Your task to perform on an android device: Go to calendar. Show me events next week Image 0: 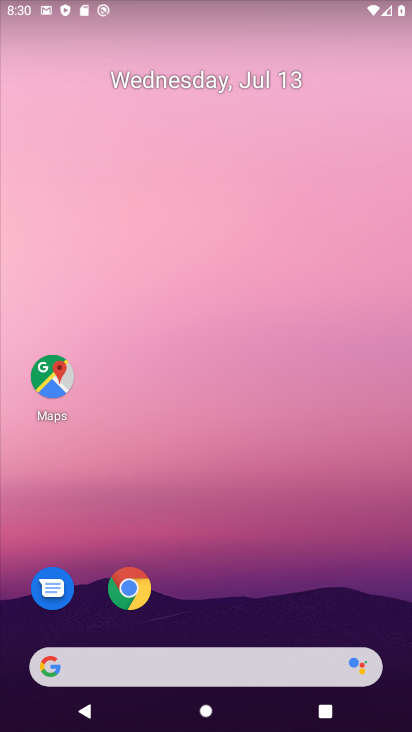
Step 0: click (220, 185)
Your task to perform on an android device: Go to calendar. Show me events next week Image 1: 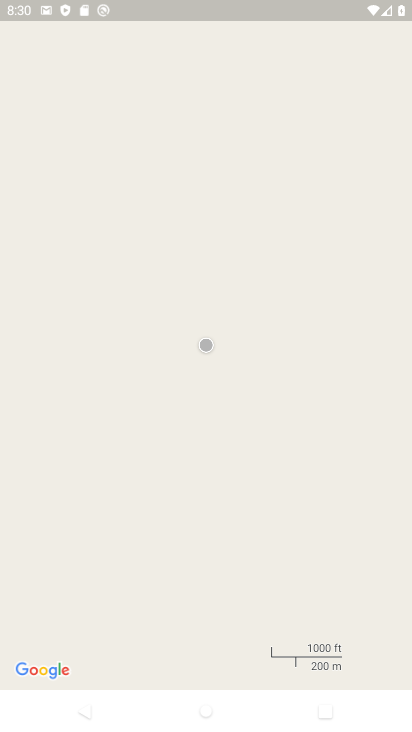
Step 1: press home button
Your task to perform on an android device: Go to calendar. Show me events next week Image 2: 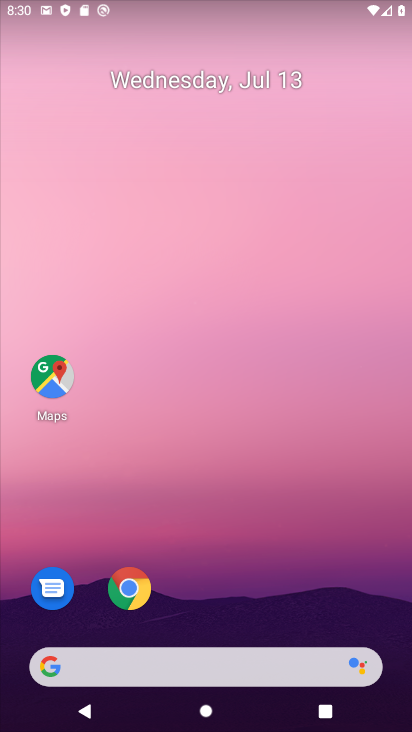
Step 2: drag from (258, 525) to (269, 191)
Your task to perform on an android device: Go to calendar. Show me events next week Image 3: 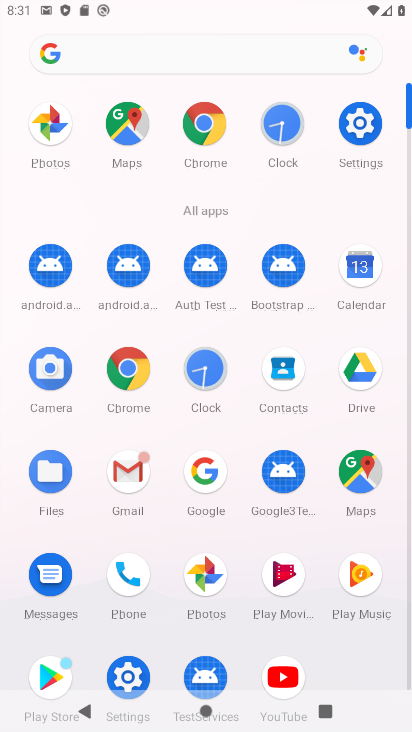
Step 3: click (358, 266)
Your task to perform on an android device: Go to calendar. Show me events next week Image 4: 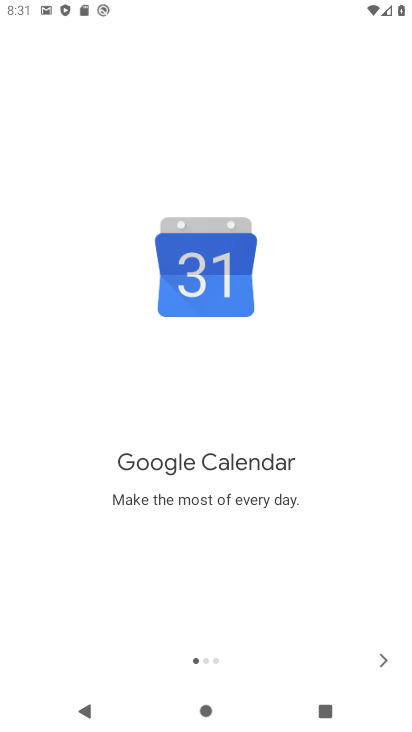
Step 4: click (375, 652)
Your task to perform on an android device: Go to calendar. Show me events next week Image 5: 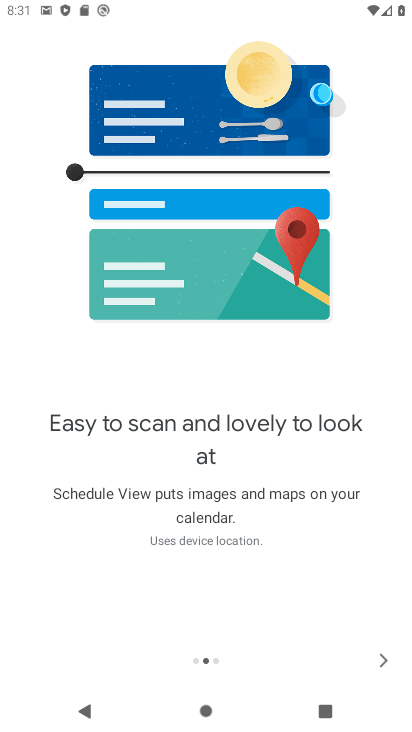
Step 5: click (373, 648)
Your task to perform on an android device: Go to calendar. Show me events next week Image 6: 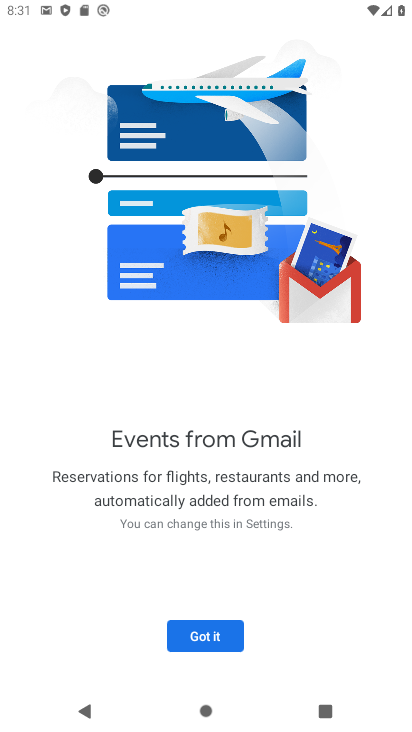
Step 6: click (213, 627)
Your task to perform on an android device: Go to calendar. Show me events next week Image 7: 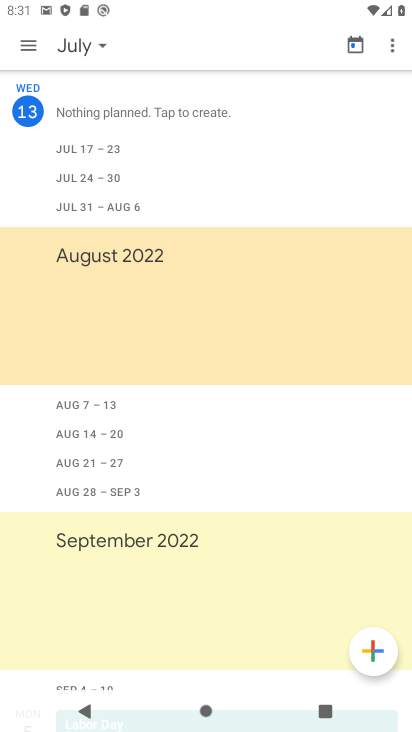
Step 7: click (24, 37)
Your task to perform on an android device: Go to calendar. Show me events next week Image 8: 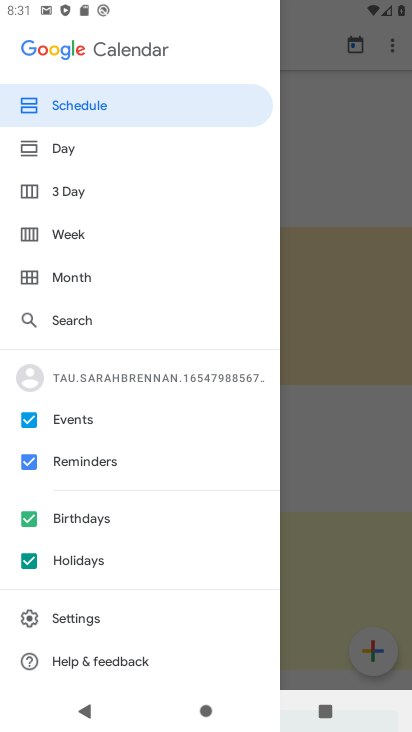
Step 8: click (56, 273)
Your task to perform on an android device: Go to calendar. Show me events next week Image 9: 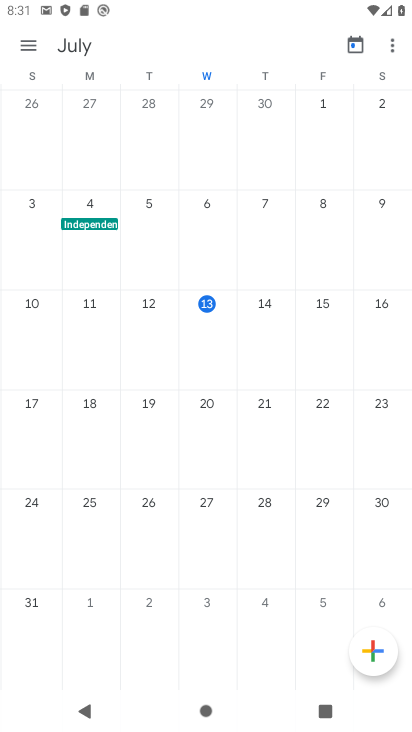
Step 9: click (29, 42)
Your task to perform on an android device: Go to calendar. Show me events next week Image 10: 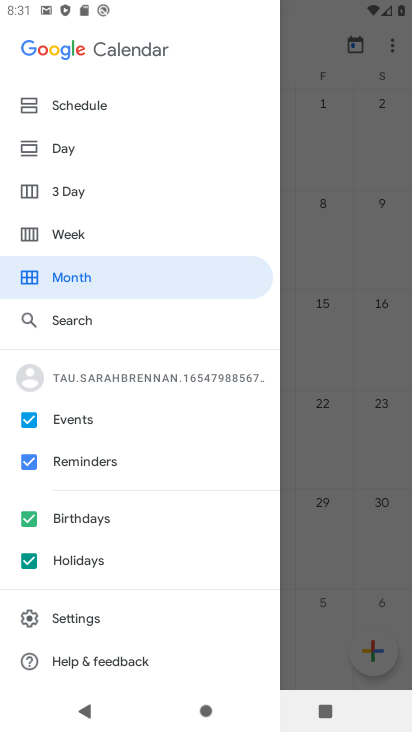
Step 10: click (101, 223)
Your task to perform on an android device: Go to calendar. Show me events next week Image 11: 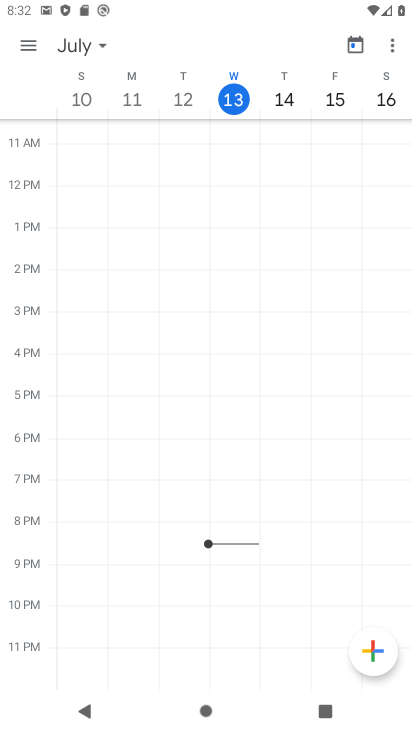
Step 11: task complete